Your task to perform on an android device: toggle pop-ups in chrome Image 0: 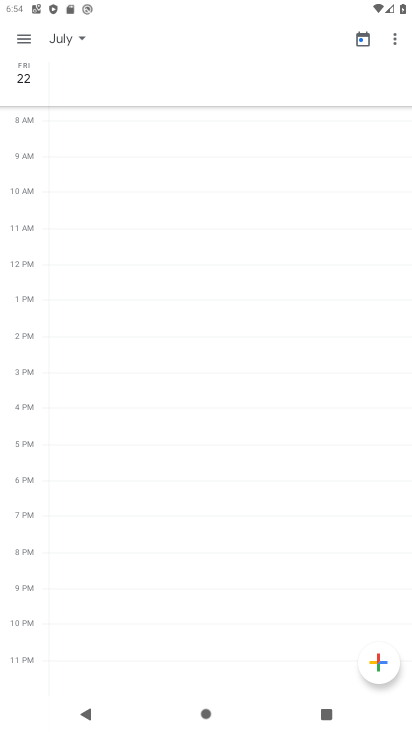
Step 0: press home button
Your task to perform on an android device: toggle pop-ups in chrome Image 1: 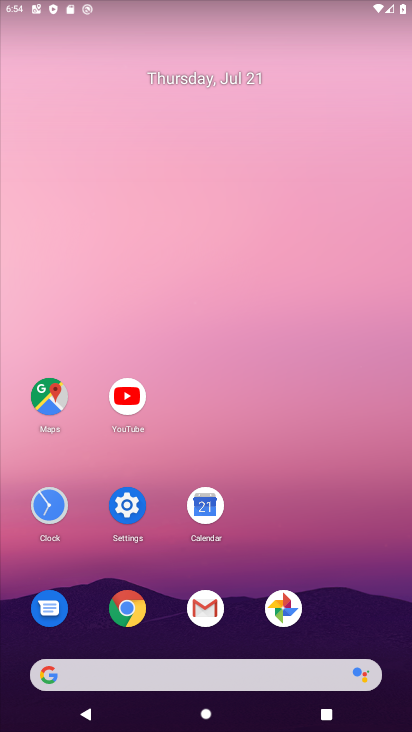
Step 1: click (124, 602)
Your task to perform on an android device: toggle pop-ups in chrome Image 2: 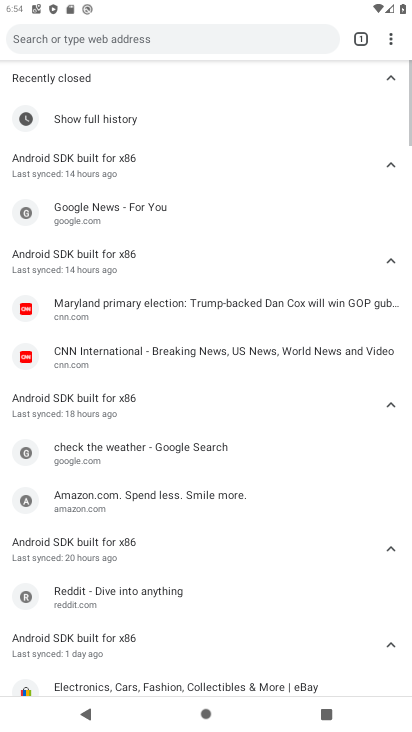
Step 2: click (392, 39)
Your task to perform on an android device: toggle pop-ups in chrome Image 3: 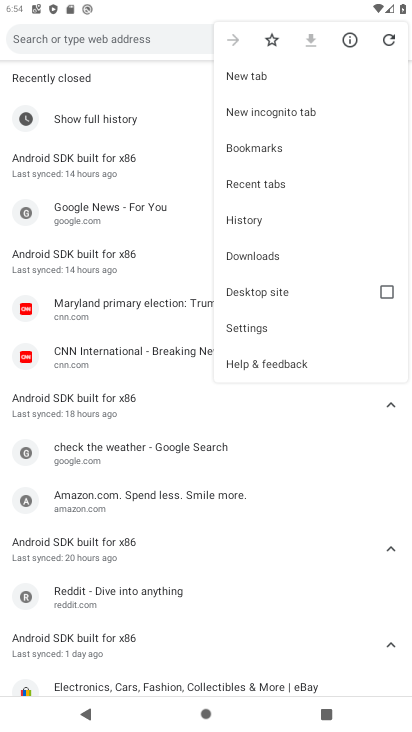
Step 3: click (257, 323)
Your task to perform on an android device: toggle pop-ups in chrome Image 4: 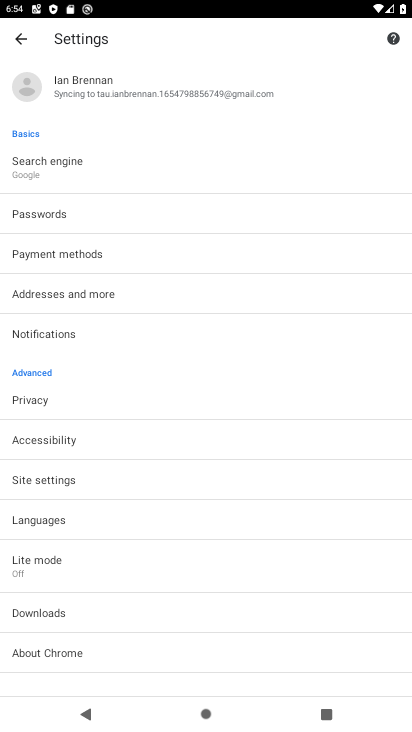
Step 4: click (49, 475)
Your task to perform on an android device: toggle pop-ups in chrome Image 5: 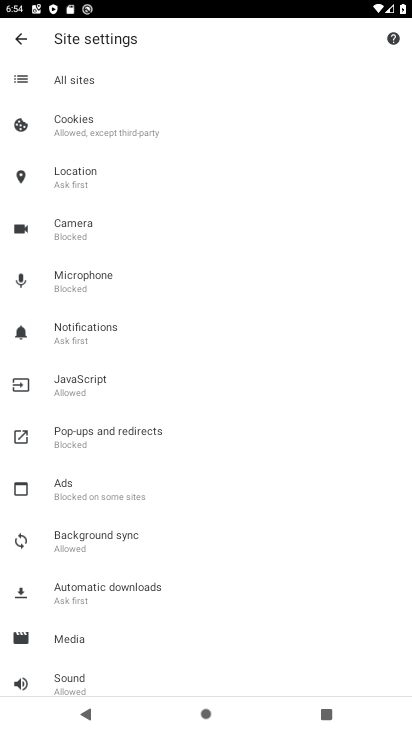
Step 5: click (82, 434)
Your task to perform on an android device: toggle pop-ups in chrome Image 6: 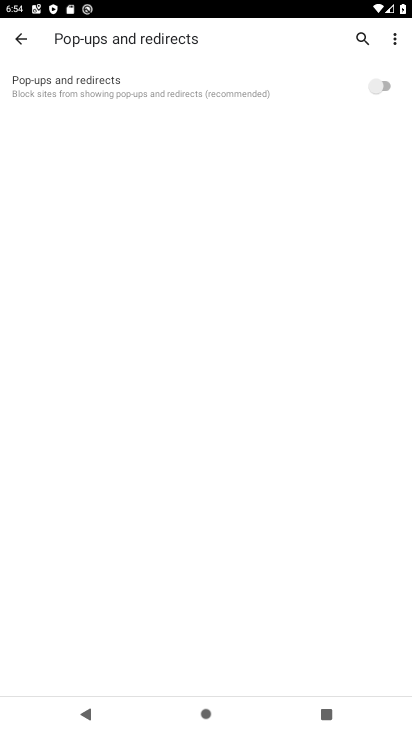
Step 6: click (379, 82)
Your task to perform on an android device: toggle pop-ups in chrome Image 7: 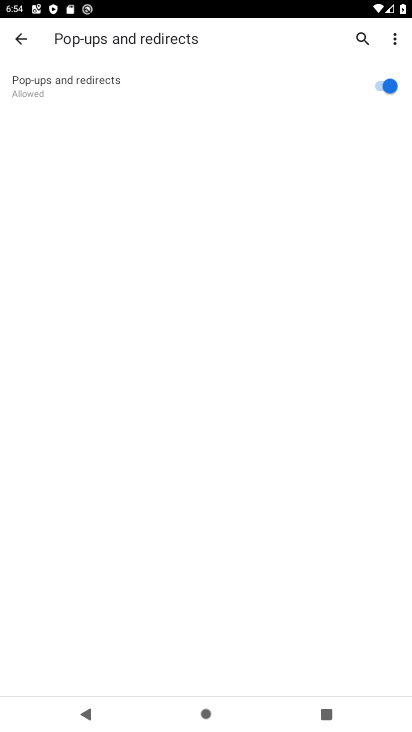
Step 7: task complete